Your task to perform on an android device: toggle javascript in the chrome app Image 0: 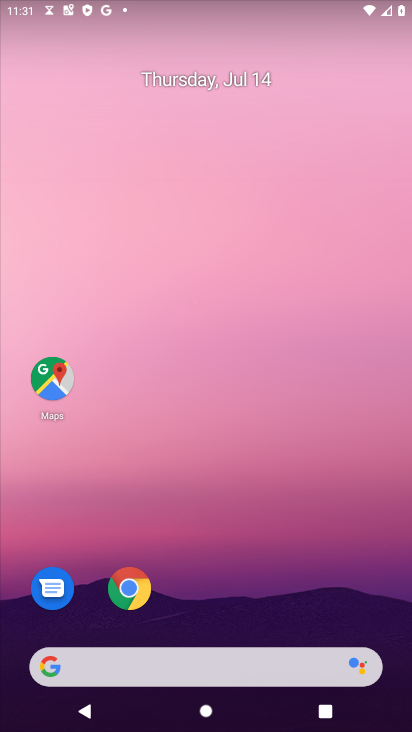
Step 0: press home button
Your task to perform on an android device: toggle javascript in the chrome app Image 1: 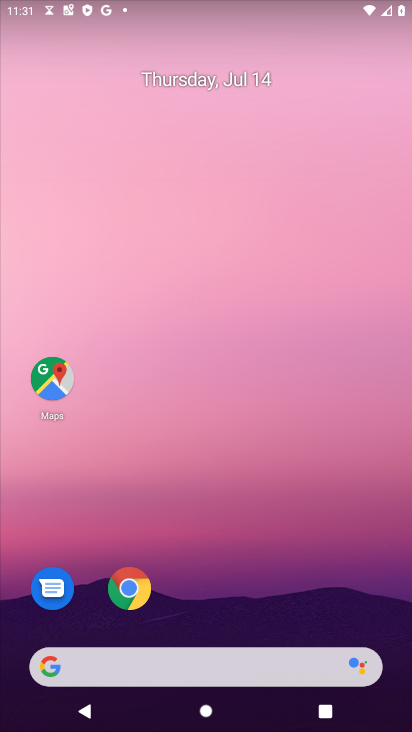
Step 1: click (129, 590)
Your task to perform on an android device: toggle javascript in the chrome app Image 2: 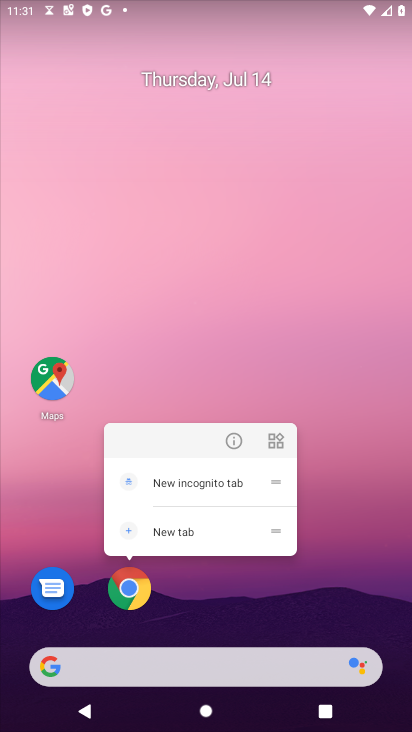
Step 2: click (139, 587)
Your task to perform on an android device: toggle javascript in the chrome app Image 3: 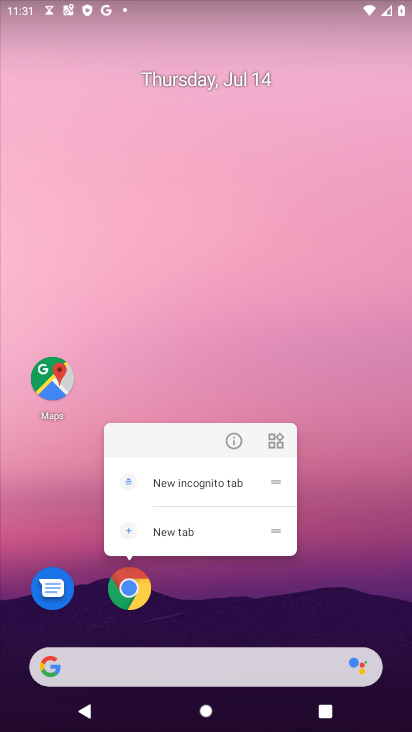
Step 3: click (131, 592)
Your task to perform on an android device: toggle javascript in the chrome app Image 4: 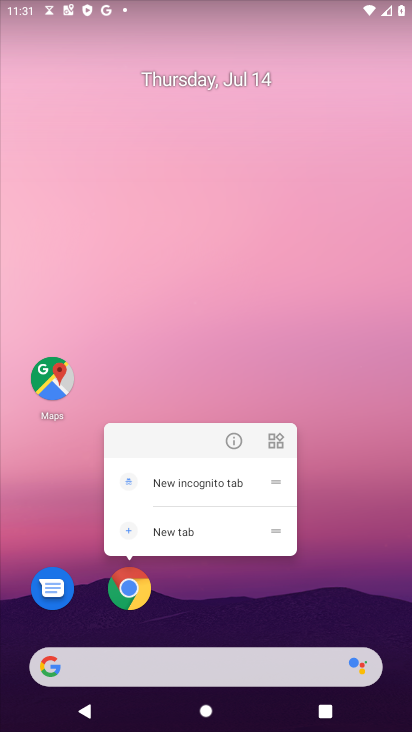
Step 4: click (128, 596)
Your task to perform on an android device: toggle javascript in the chrome app Image 5: 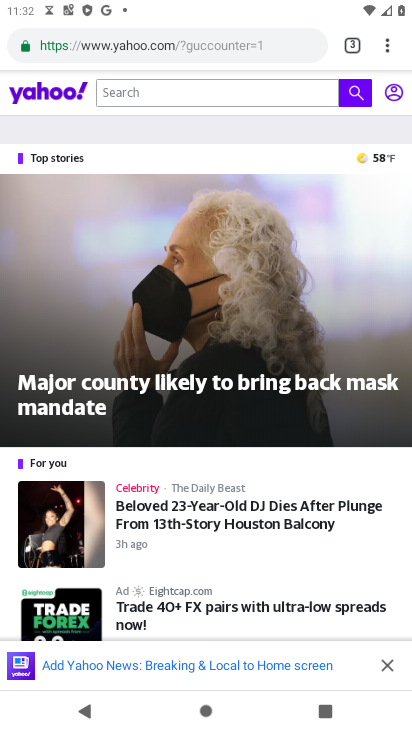
Step 5: drag from (388, 43) to (279, 555)
Your task to perform on an android device: toggle javascript in the chrome app Image 6: 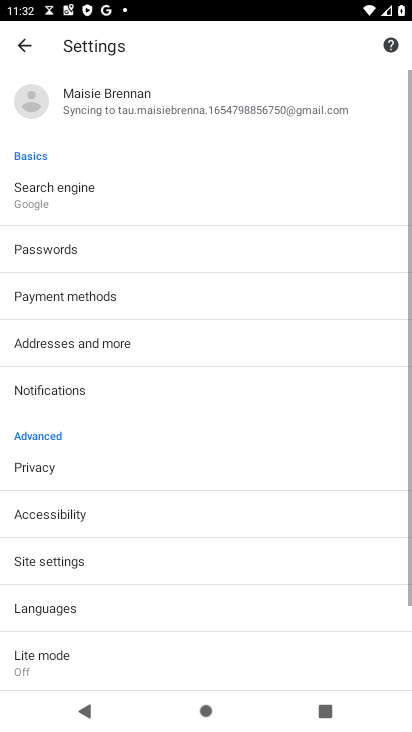
Step 6: drag from (178, 573) to (346, 157)
Your task to perform on an android device: toggle javascript in the chrome app Image 7: 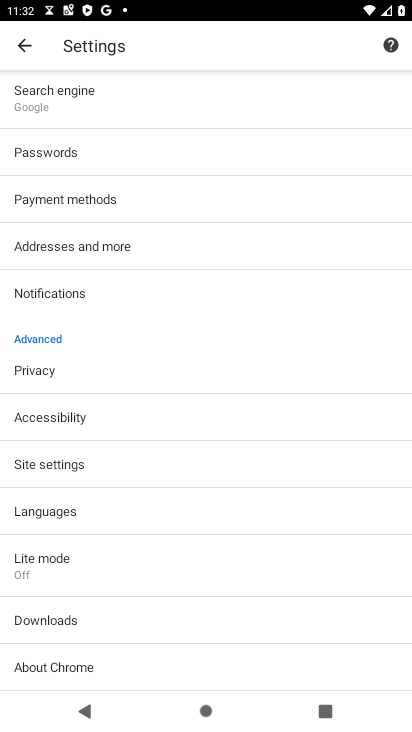
Step 7: click (79, 468)
Your task to perform on an android device: toggle javascript in the chrome app Image 8: 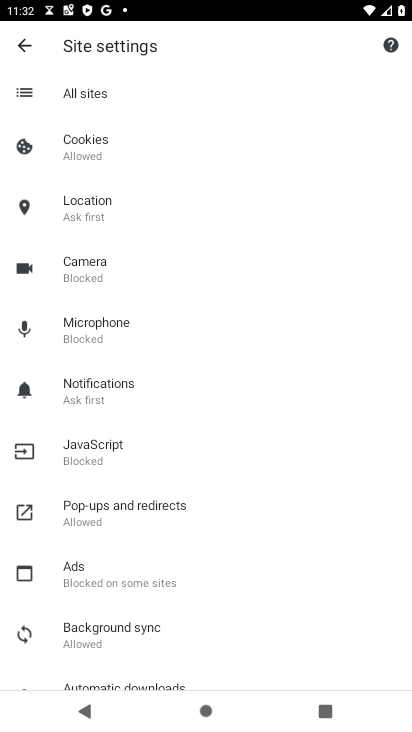
Step 8: click (108, 455)
Your task to perform on an android device: toggle javascript in the chrome app Image 9: 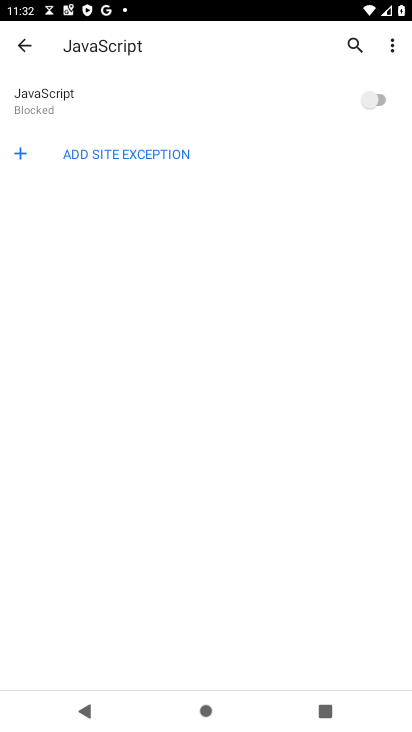
Step 9: click (381, 96)
Your task to perform on an android device: toggle javascript in the chrome app Image 10: 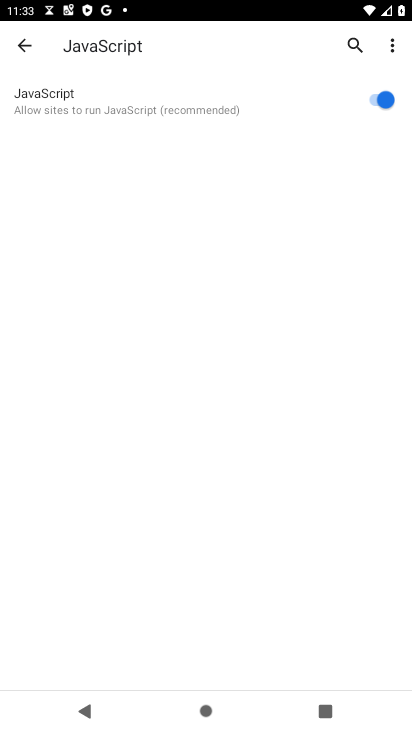
Step 10: task complete